Your task to perform on an android device: snooze an email in the gmail app Image 0: 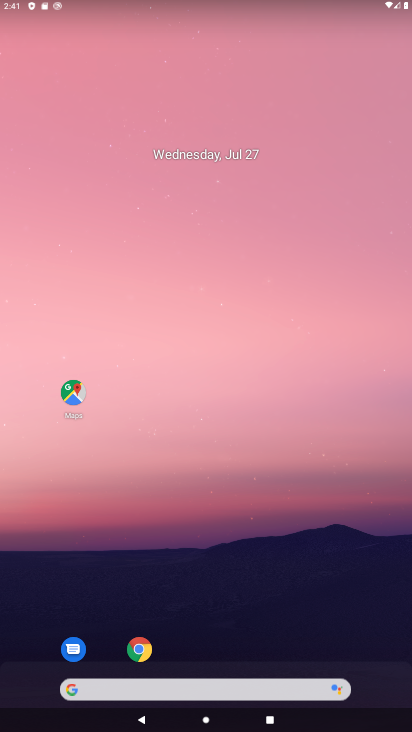
Step 0: drag from (266, 587) to (291, 172)
Your task to perform on an android device: snooze an email in the gmail app Image 1: 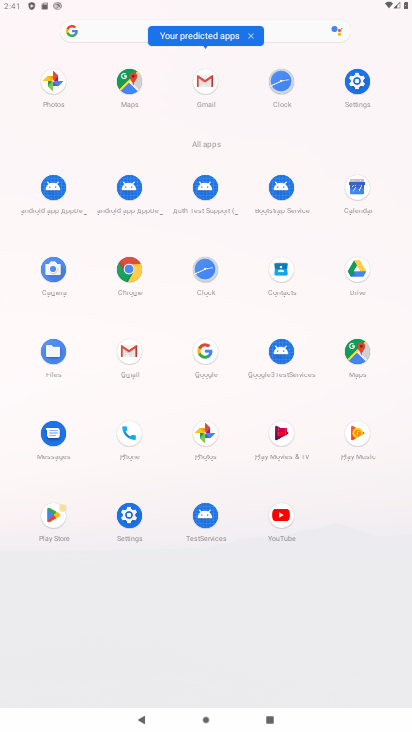
Step 1: click (121, 348)
Your task to perform on an android device: snooze an email in the gmail app Image 2: 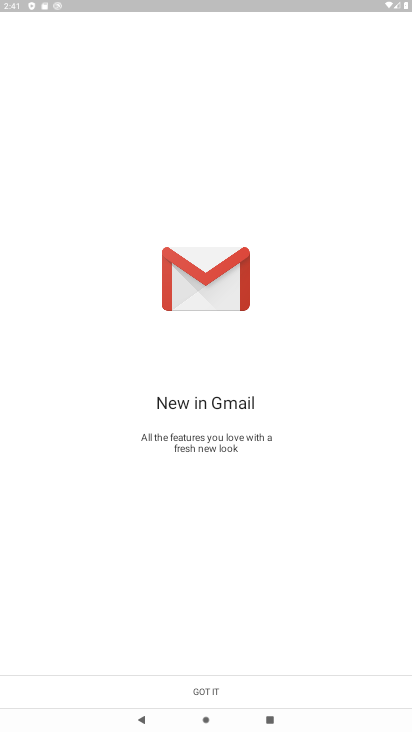
Step 2: click (206, 688)
Your task to perform on an android device: snooze an email in the gmail app Image 3: 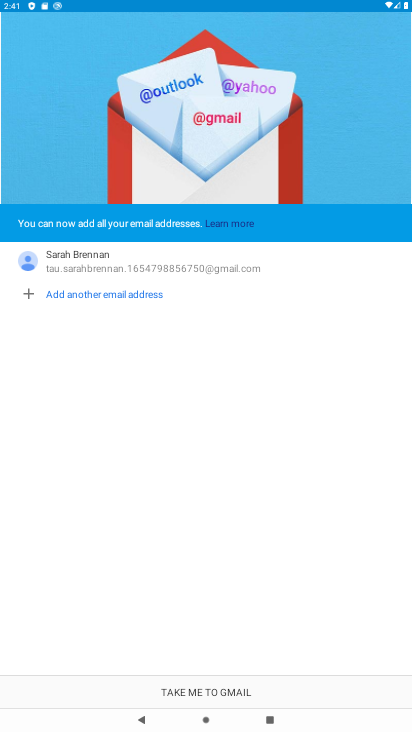
Step 3: click (206, 688)
Your task to perform on an android device: snooze an email in the gmail app Image 4: 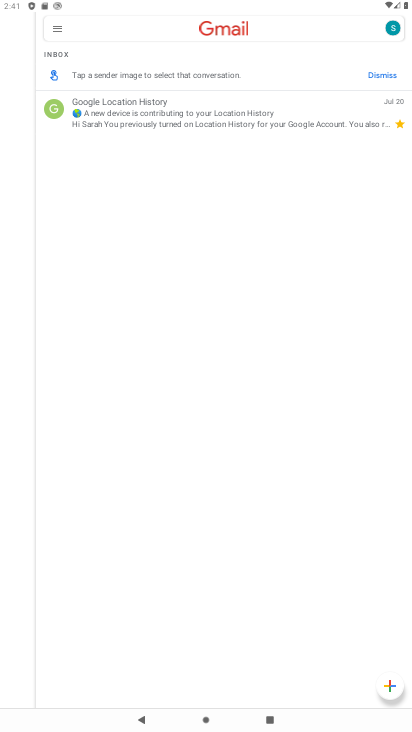
Step 4: click (52, 28)
Your task to perform on an android device: snooze an email in the gmail app Image 5: 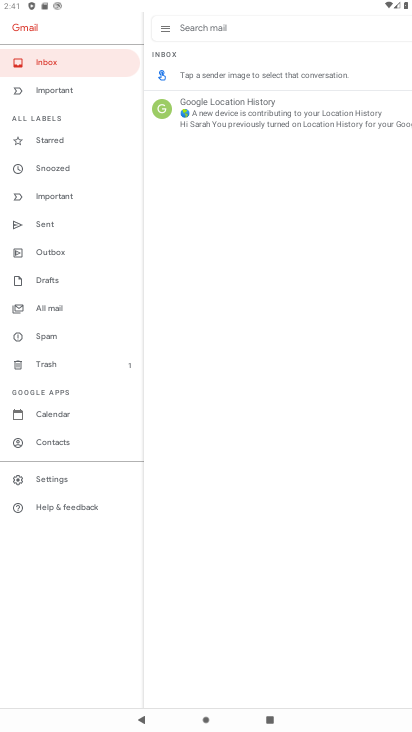
Step 5: click (172, 108)
Your task to perform on an android device: snooze an email in the gmail app Image 6: 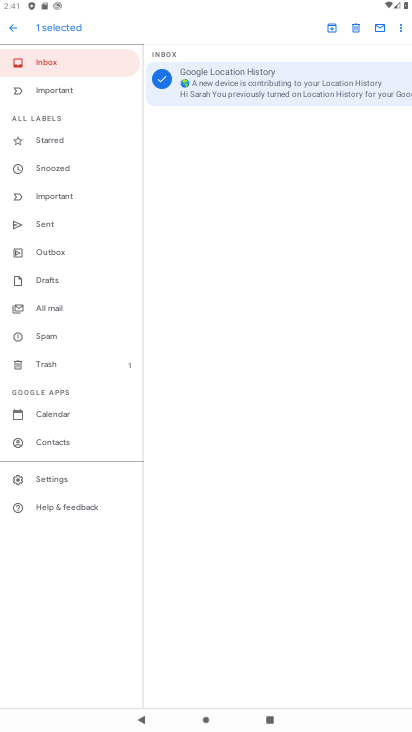
Step 6: drag from (183, 191) to (45, 102)
Your task to perform on an android device: snooze an email in the gmail app Image 7: 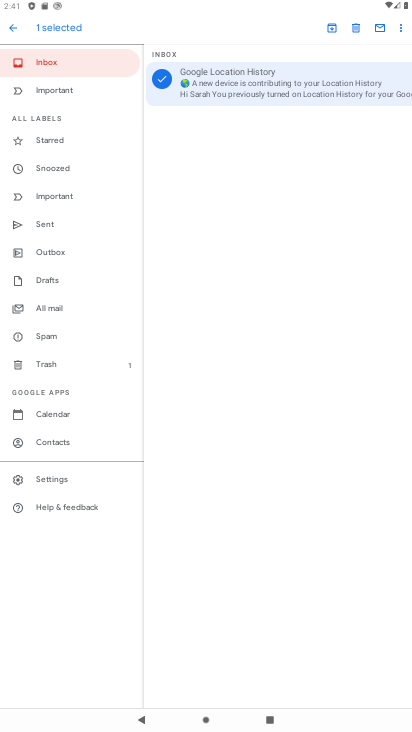
Step 7: click (395, 25)
Your task to perform on an android device: snooze an email in the gmail app Image 8: 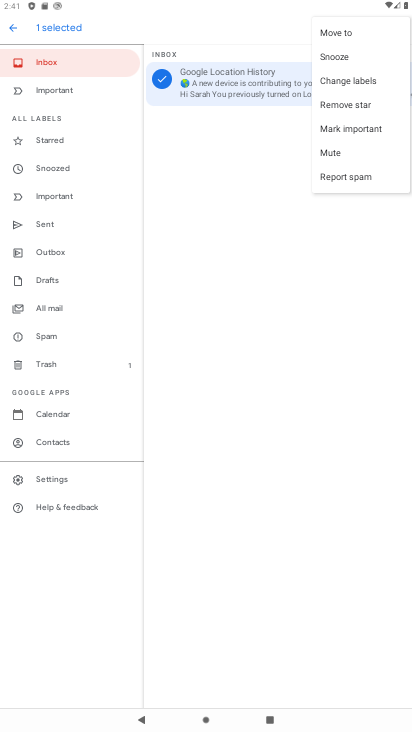
Step 8: click (332, 52)
Your task to perform on an android device: snooze an email in the gmail app Image 9: 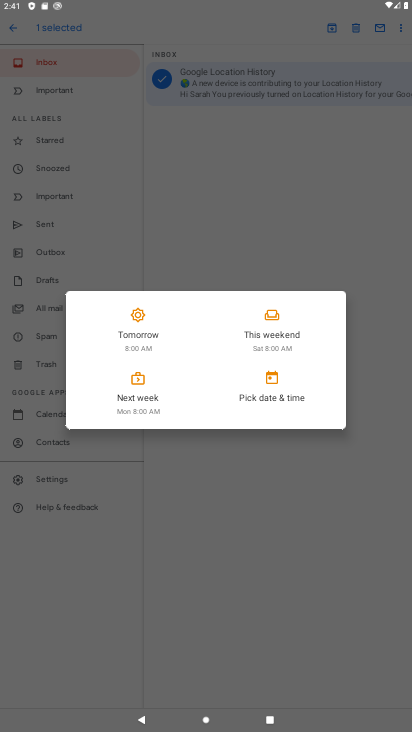
Step 9: click (127, 315)
Your task to perform on an android device: snooze an email in the gmail app Image 10: 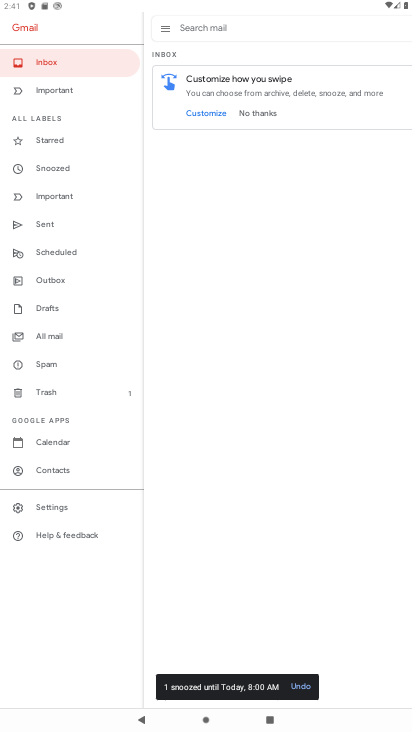
Step 10: task complete